Your task to perform on an android device: Open the Play Movies app and select the watchlist tab. Image 0: 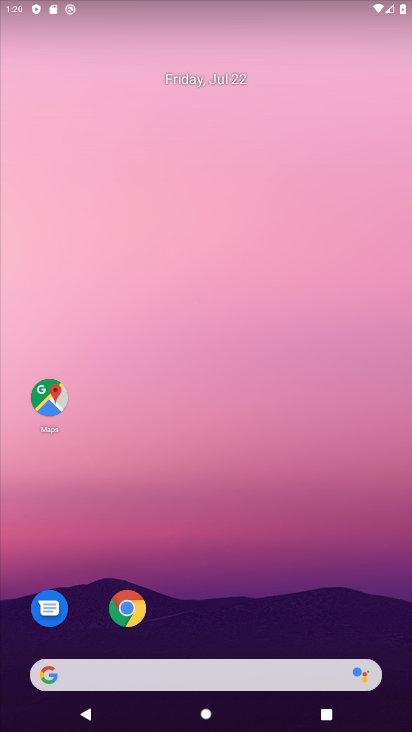
Step 0: drag from (399, 692) to (334, 155)
Your task to perform on an android device: Open the Play Movies app and select the watchlist tab. Image 1: 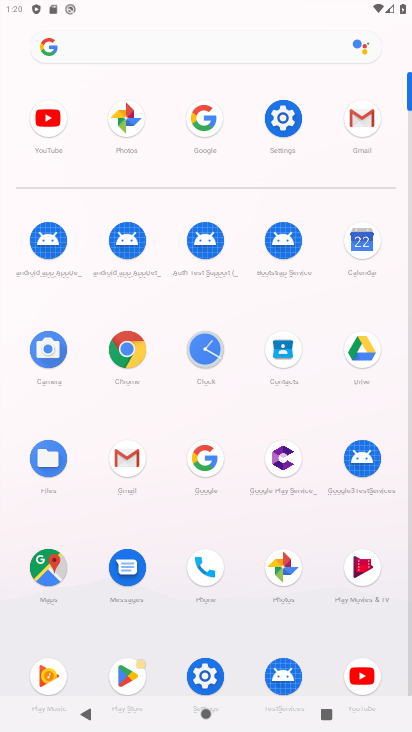
Step 1: click (349, 567)
Your task to perform on an android device: Open the Play Movies app and select the watchlist tab. Image 2: 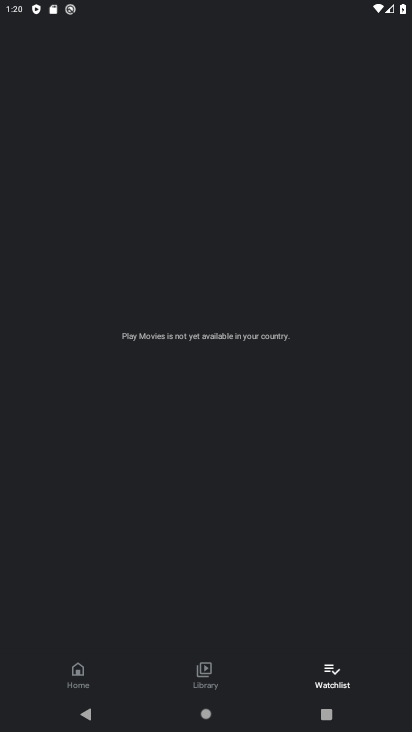
Step 2: click (333, 680)
Your task to perform on an android device: Open the Play Movies app and select the watchlist tab. Image 3: 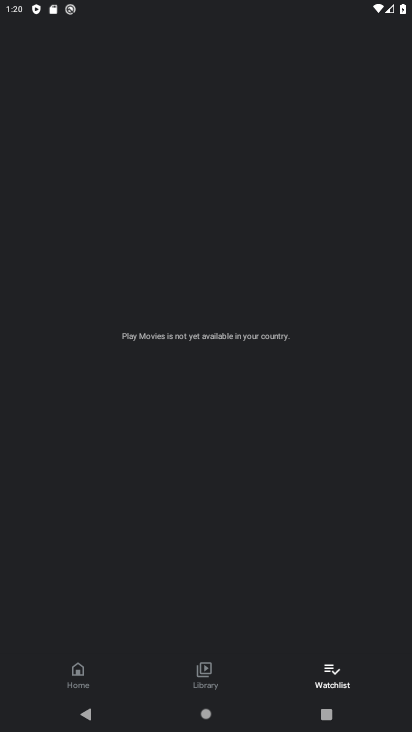
Step 3: task complete